Your task to perform on an android device: check battery use Image 0: 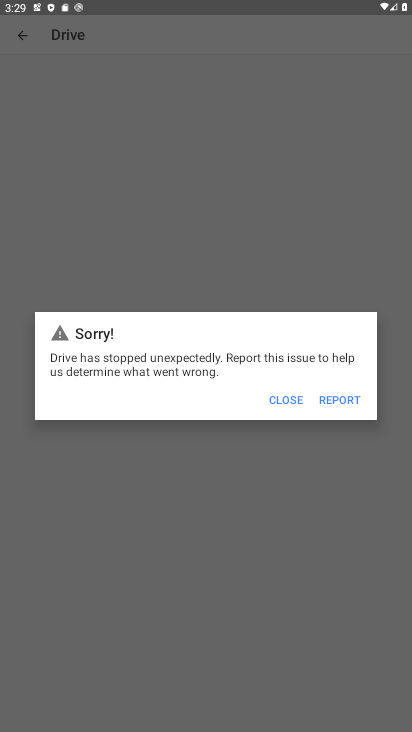
Step 0: press home button
Your task to perform on an android device: check battery use Image 1: 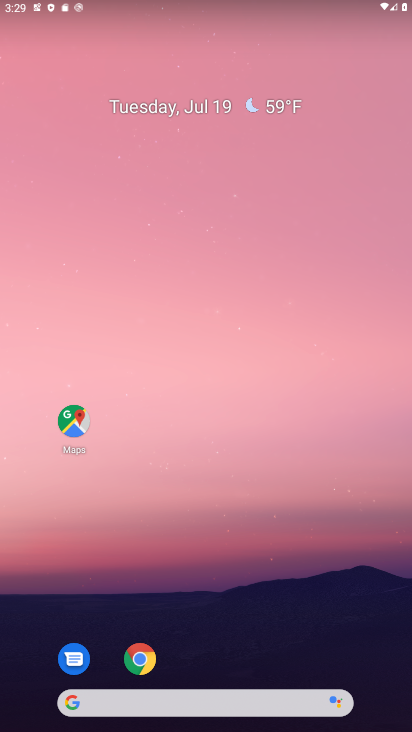
Step 1: drag from (210, 700) to (318, 199)
Your task to perform on an android device: check battery use Image 2: 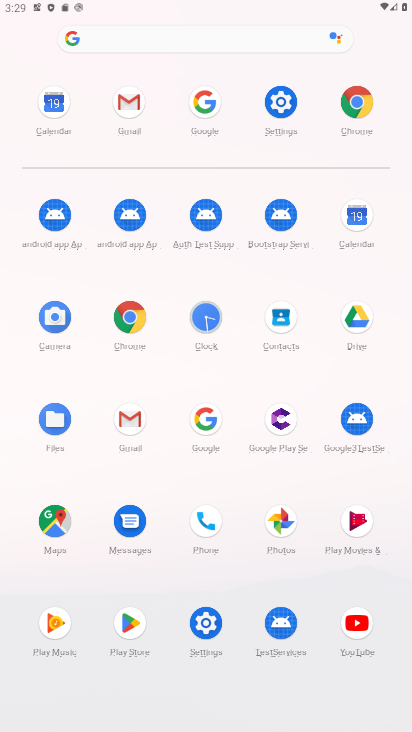
Step 2: click (284, 102)
Your task to perform on an android device: check battery use Image 3: 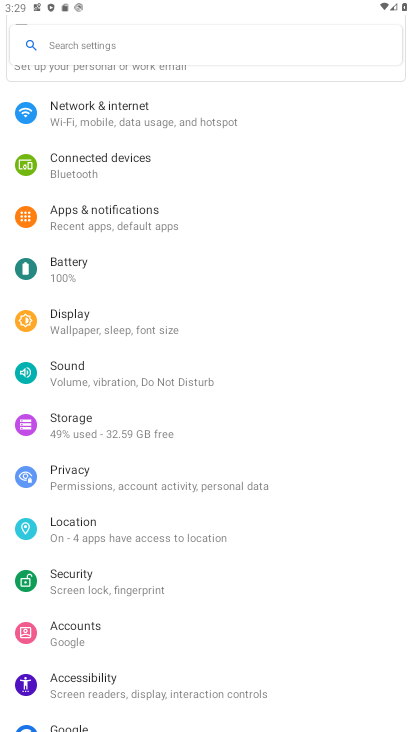
Step 3: click (65, 274)
Your task to perform on an android device: check battery use Image 4: 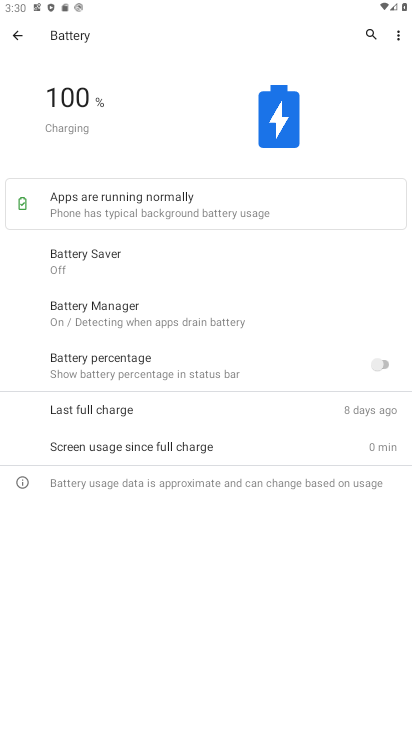
Step 4: click (398, 35)
Your task to perform on an android device: check battery use Image 5: 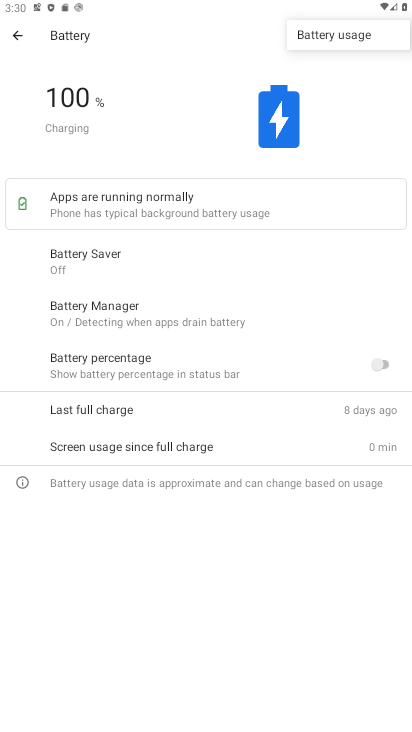
Step 5: click (349, 40)
Your task to perform on an android device: check battery use Image 6: 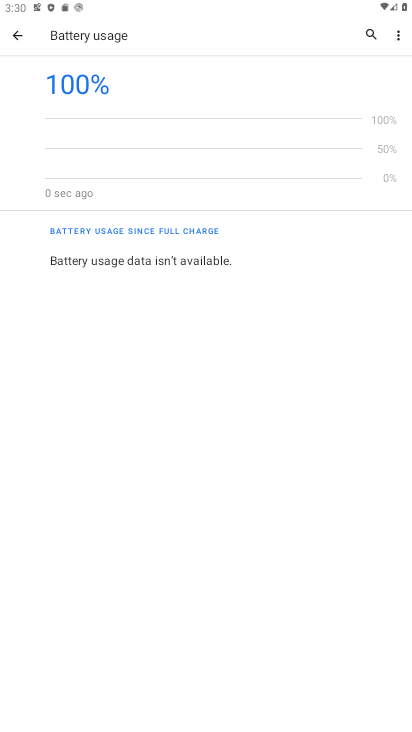
Step 6: task complete